Your task to perform on an android device: Clear the cart on ebay. Image 0: 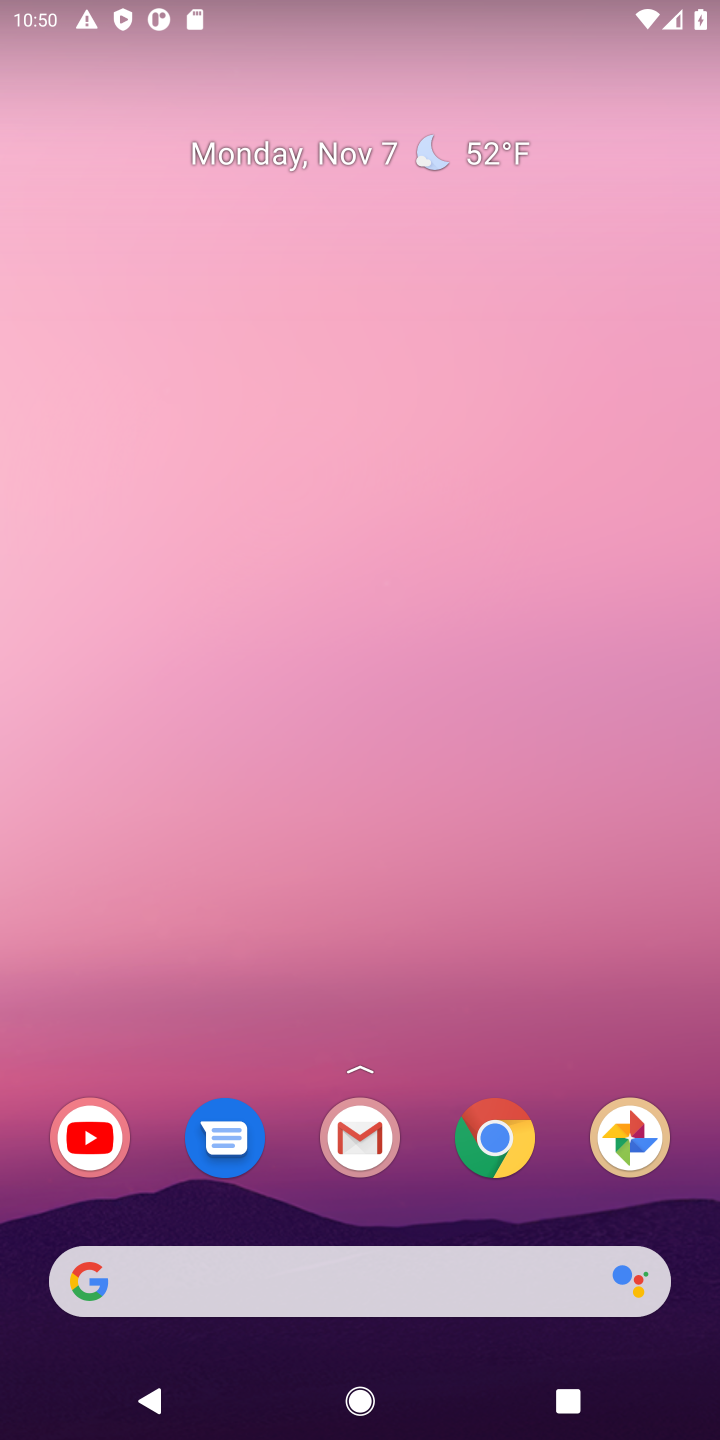
Step 0: press home button
Your task to perform on an android device: Clear the cart on ebay. Image 1: 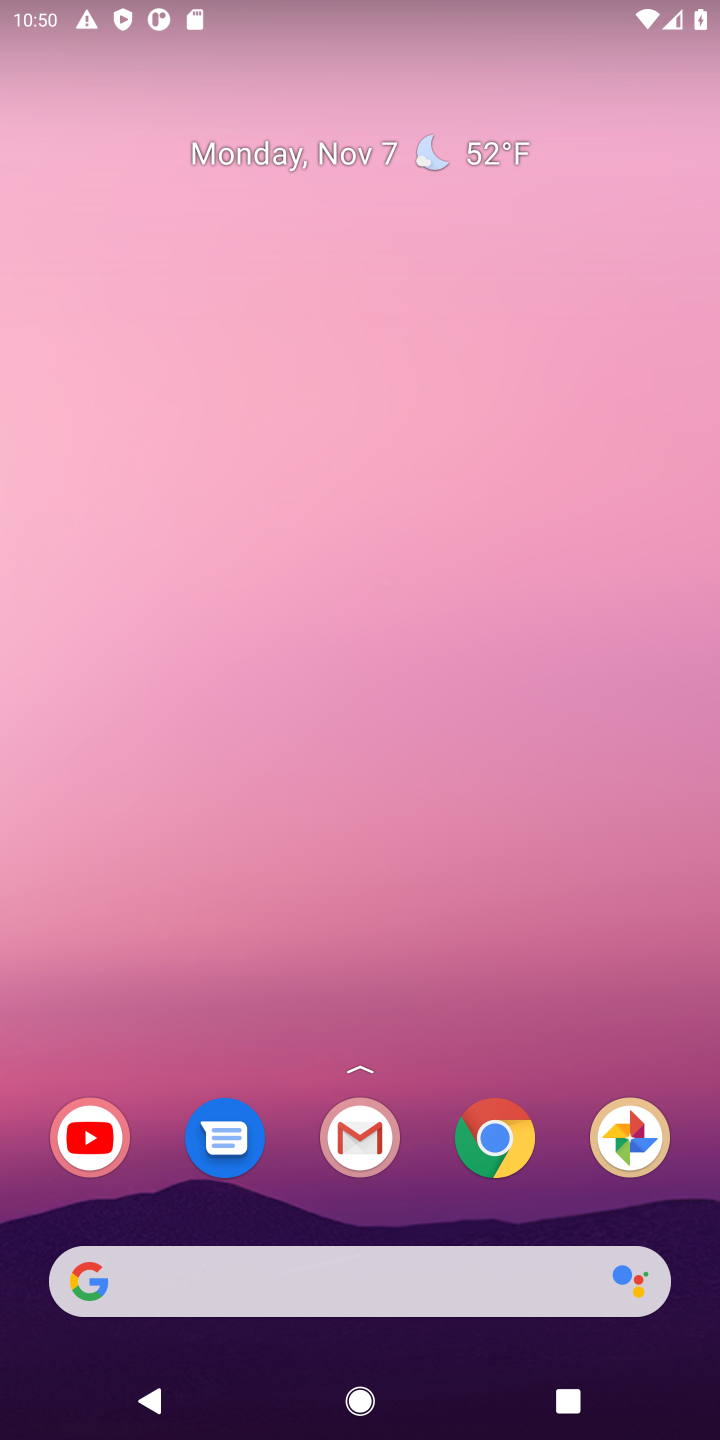
Step 1: click (474, 1159)
Your task to perform on an android device: Clear the cart on ebay. Image 2: 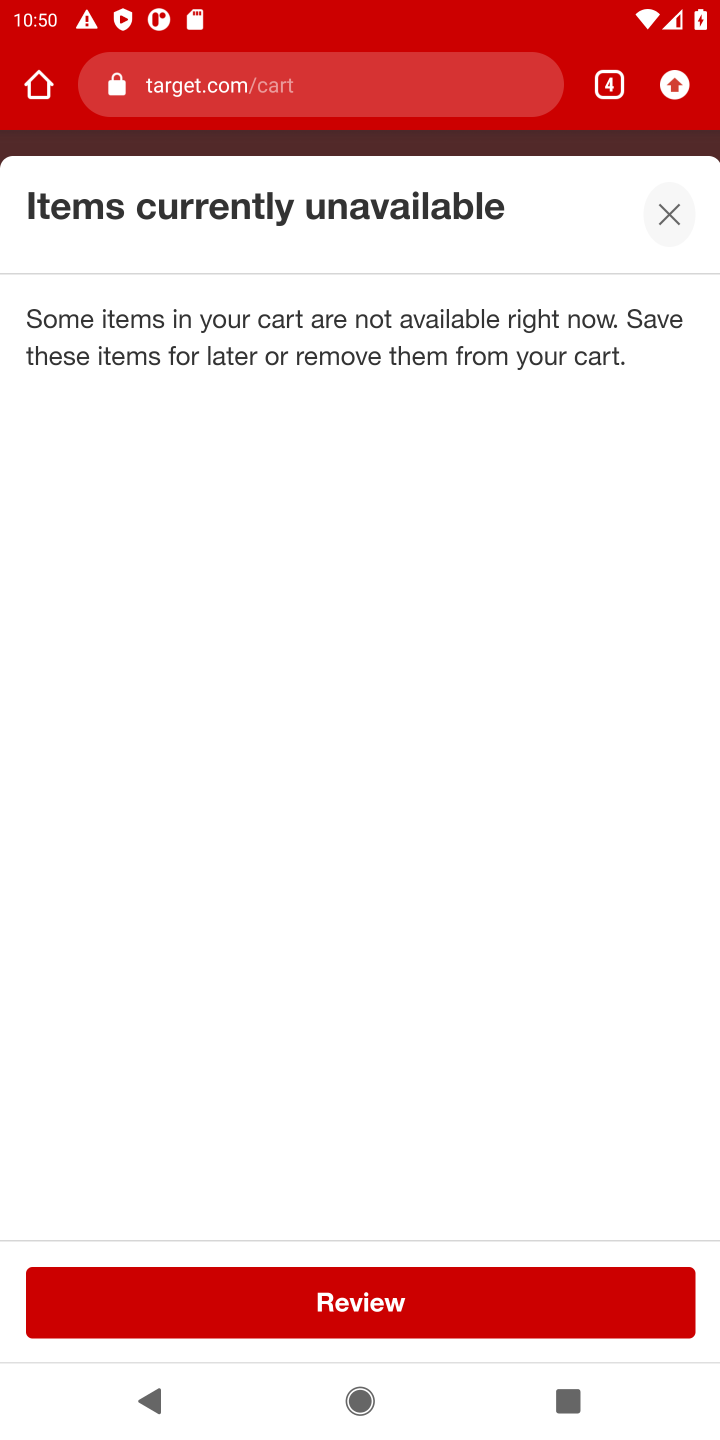
Step 2: click (243, 102)
Your task to perform on an android device: Clear the cart on ebay. Image 3: 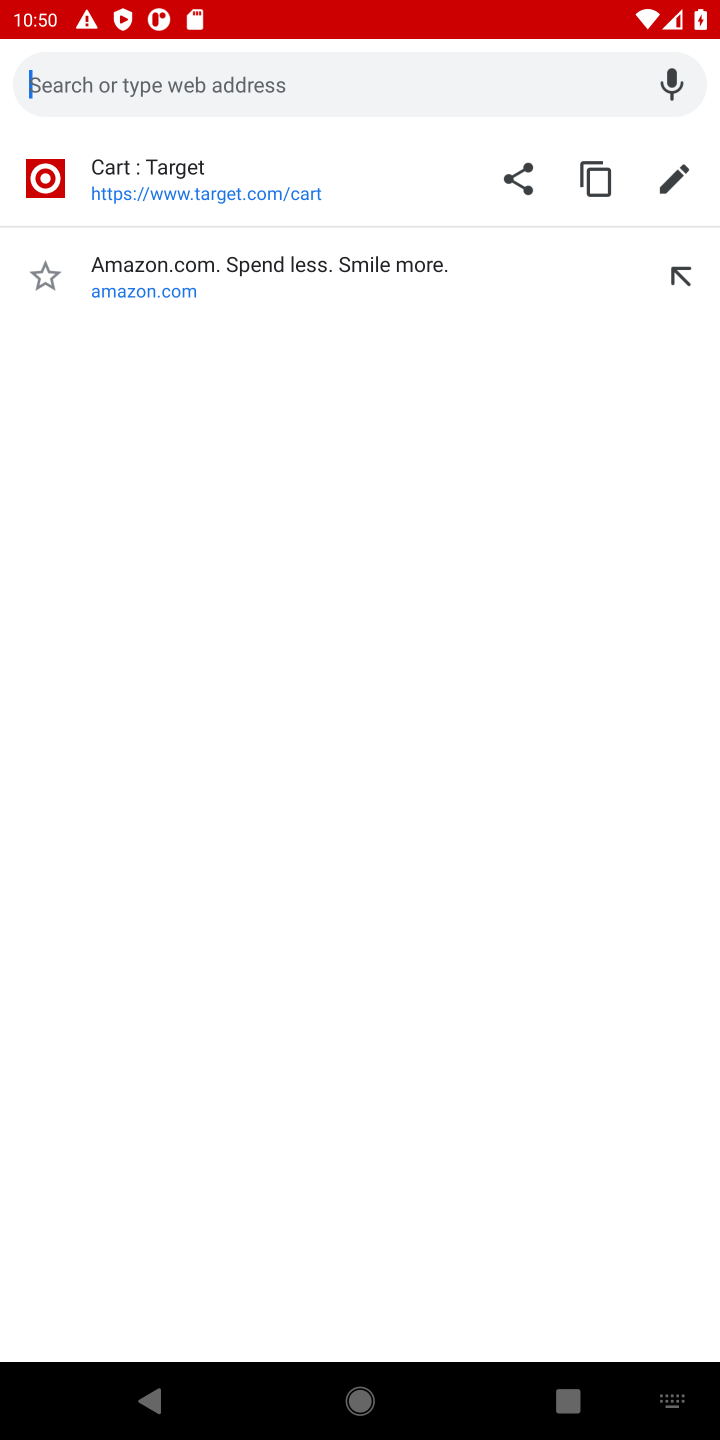
Step 3: type "ebay"
Your task to perform on an android device: Clear the cart on ebay. Image 4: 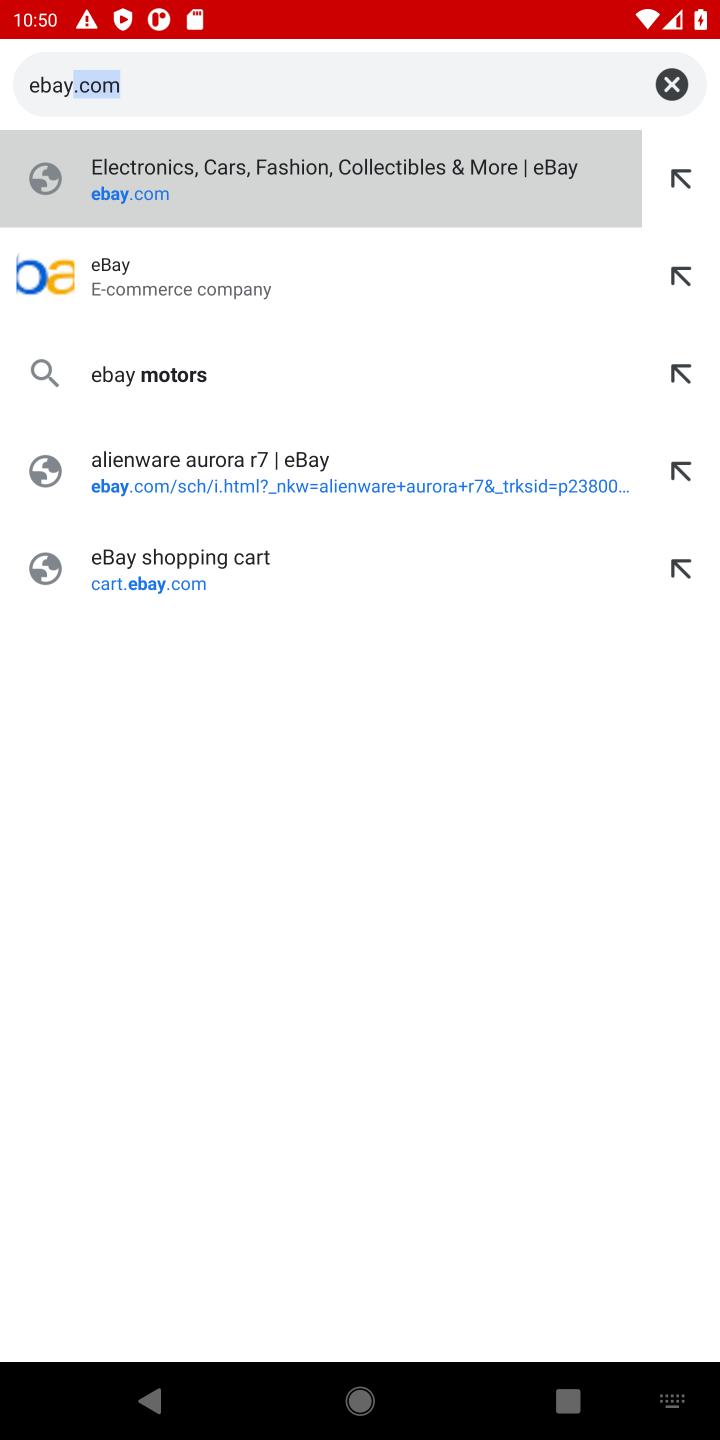
Step 4: click (111, 273)
Your task to perform on an android device: Clear the cart on ebay. Image 5: 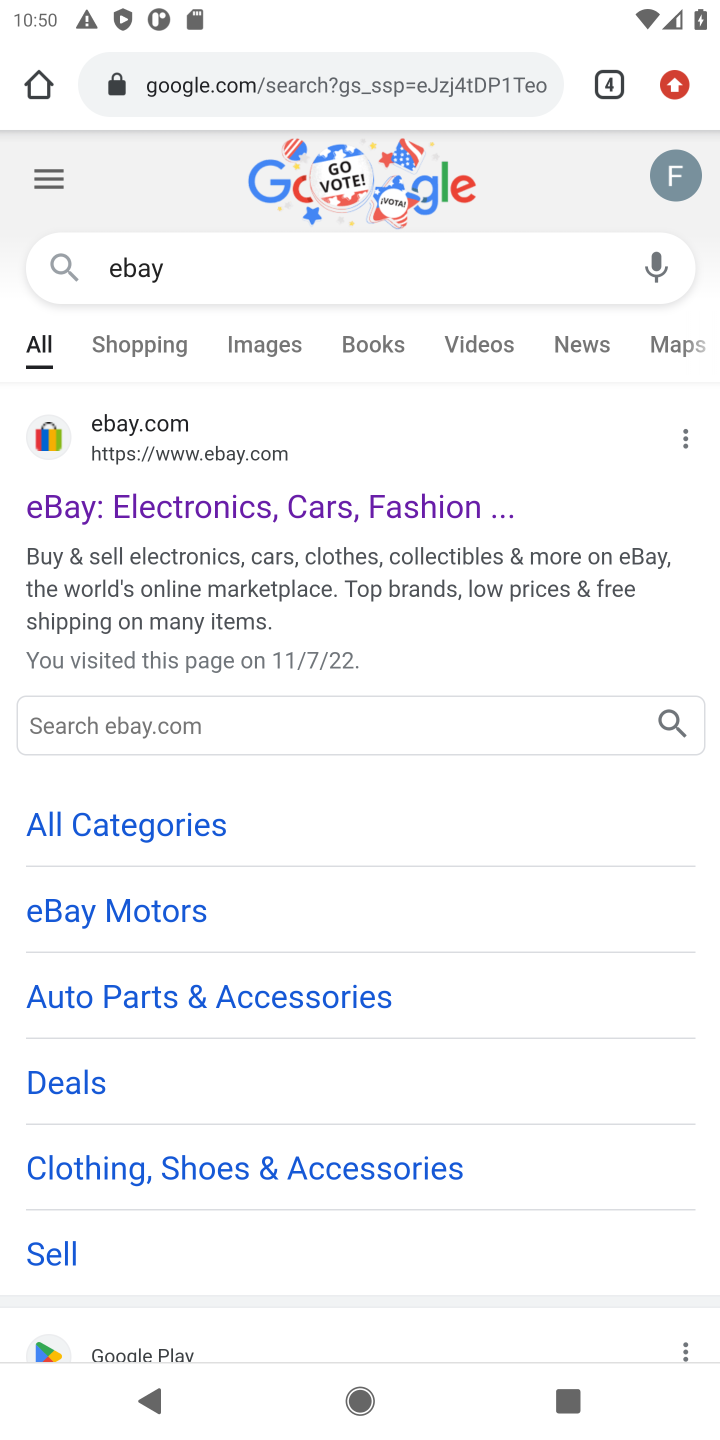
Step 5: click (179, 508)
Your task to perform on an android device: Clear the cart on ebay. Image 6: 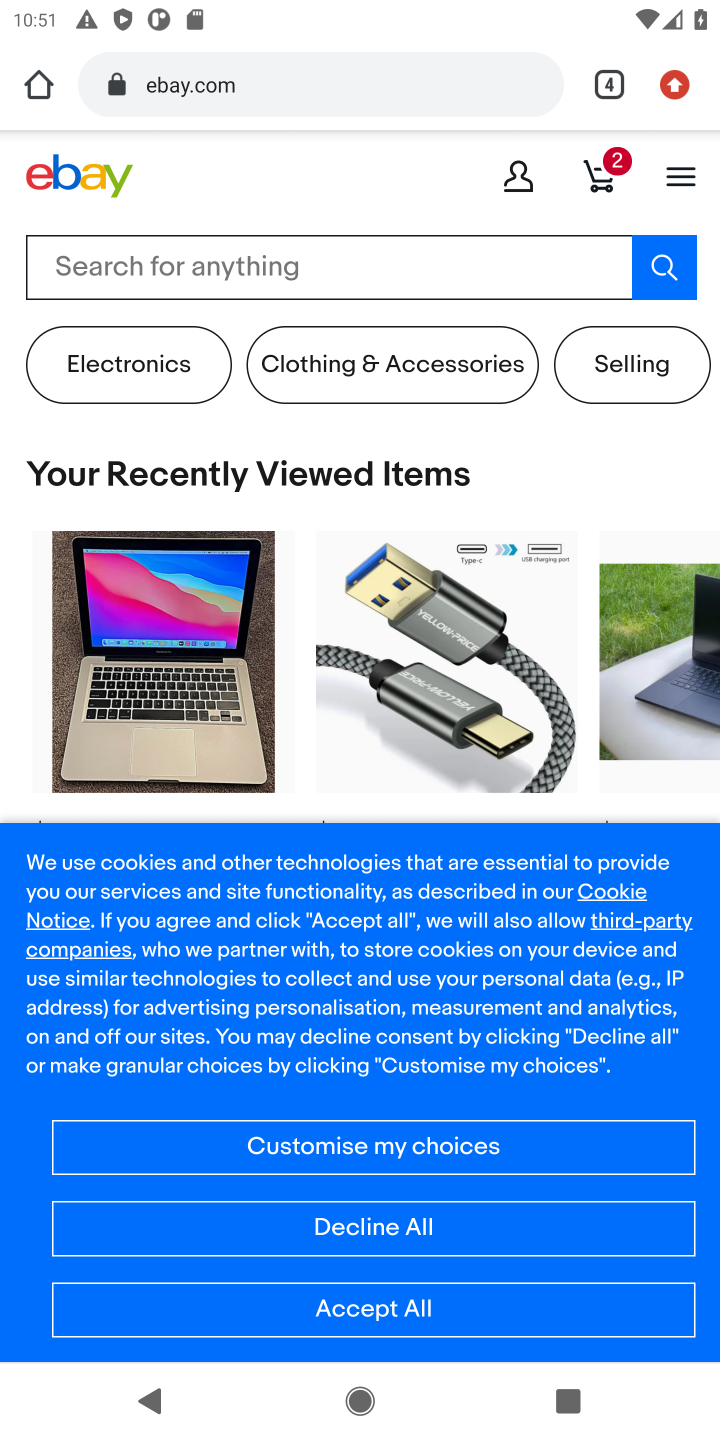
Step 6: click (240, 261)
Your task to perform on an android device: Clear the cart on ebay. Image 7: 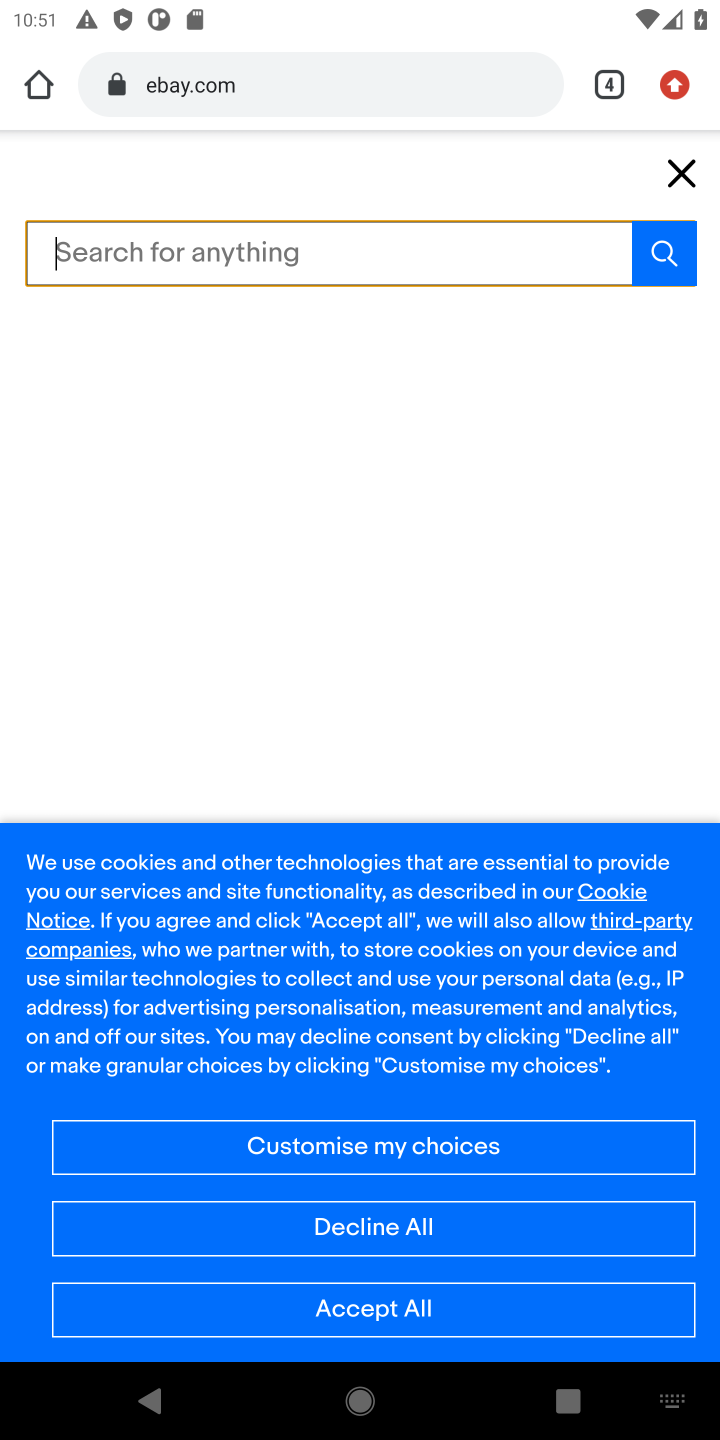
Step 7: press back button
Your task to perform on an android device: Clear the cart on ebay. Image 8: 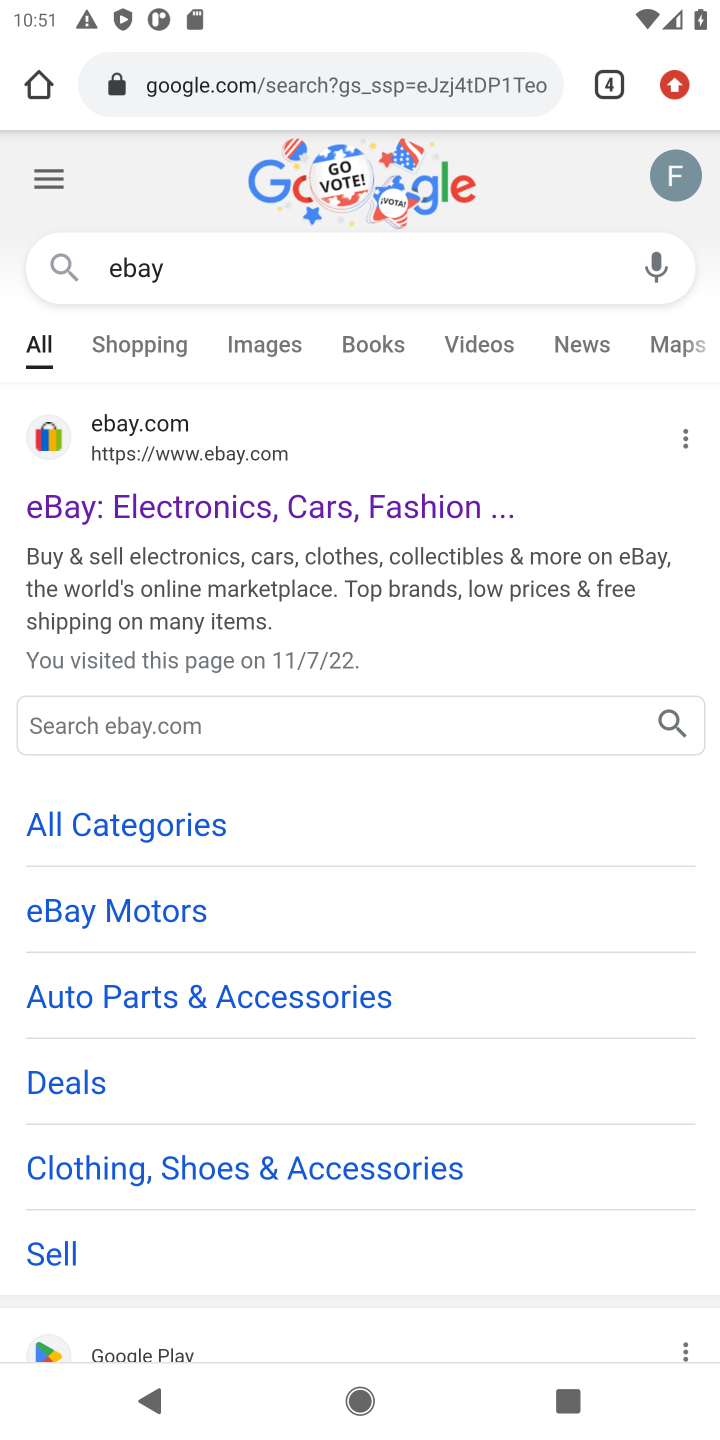
Step 8: click (171, 515)
Your task to perform on an android device: Clear the cart on ebay. Image 9: 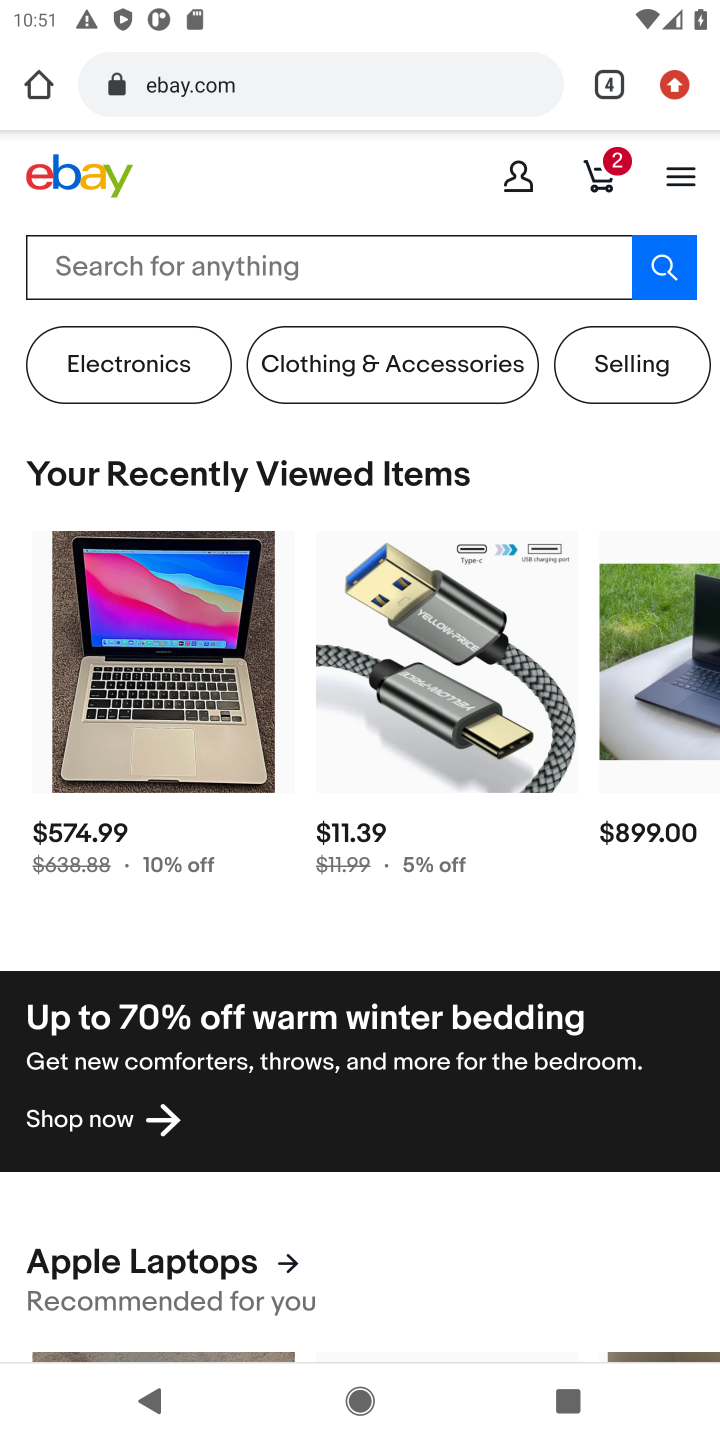
Step 9: click (590, 185)
Your task to perform on an android device: Clear the cart on ebay. Image 10: 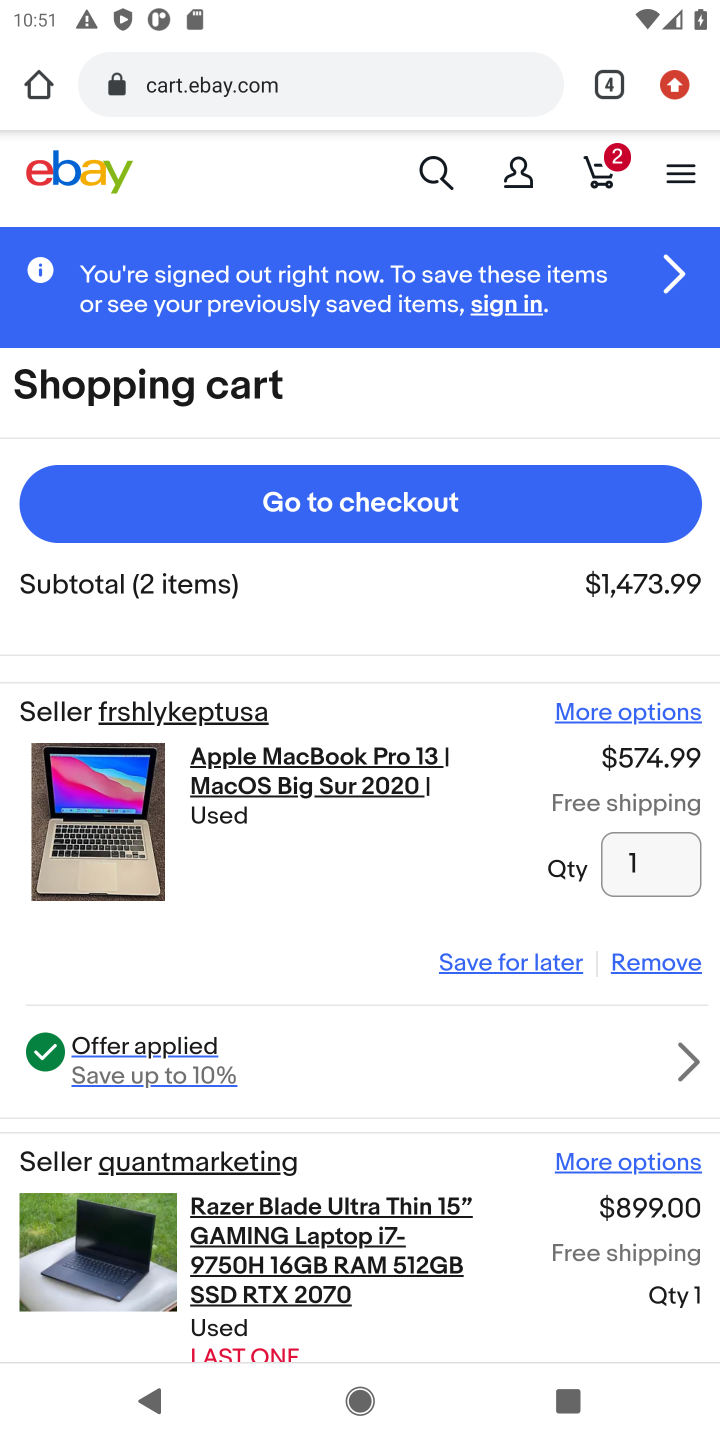
Step 10: drag from (284, 1053) to (321, 614)
Your task to perform on an android device: Clear the cart on ebay. Image 11: 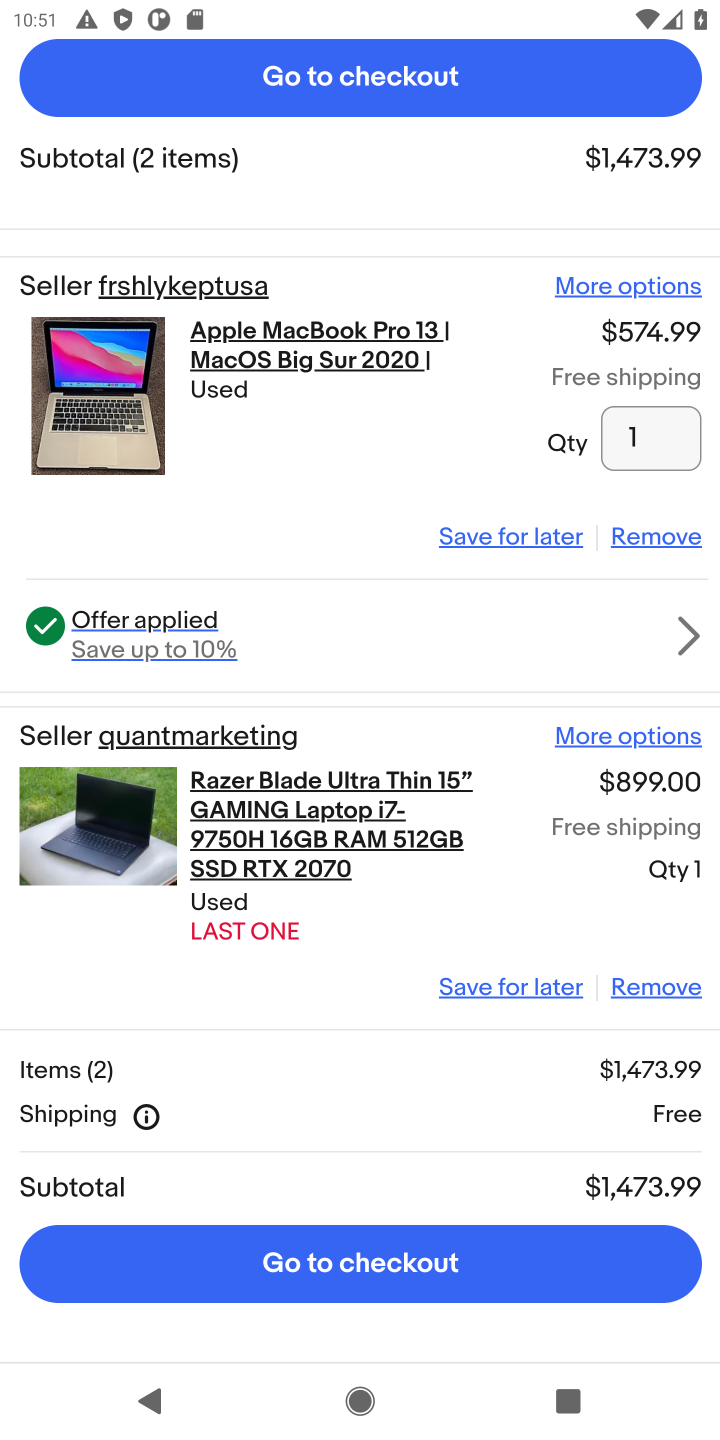
Step 11: click (630, 539)
Your task to perform on an android device: Clear the cart on ebay. Image 12: 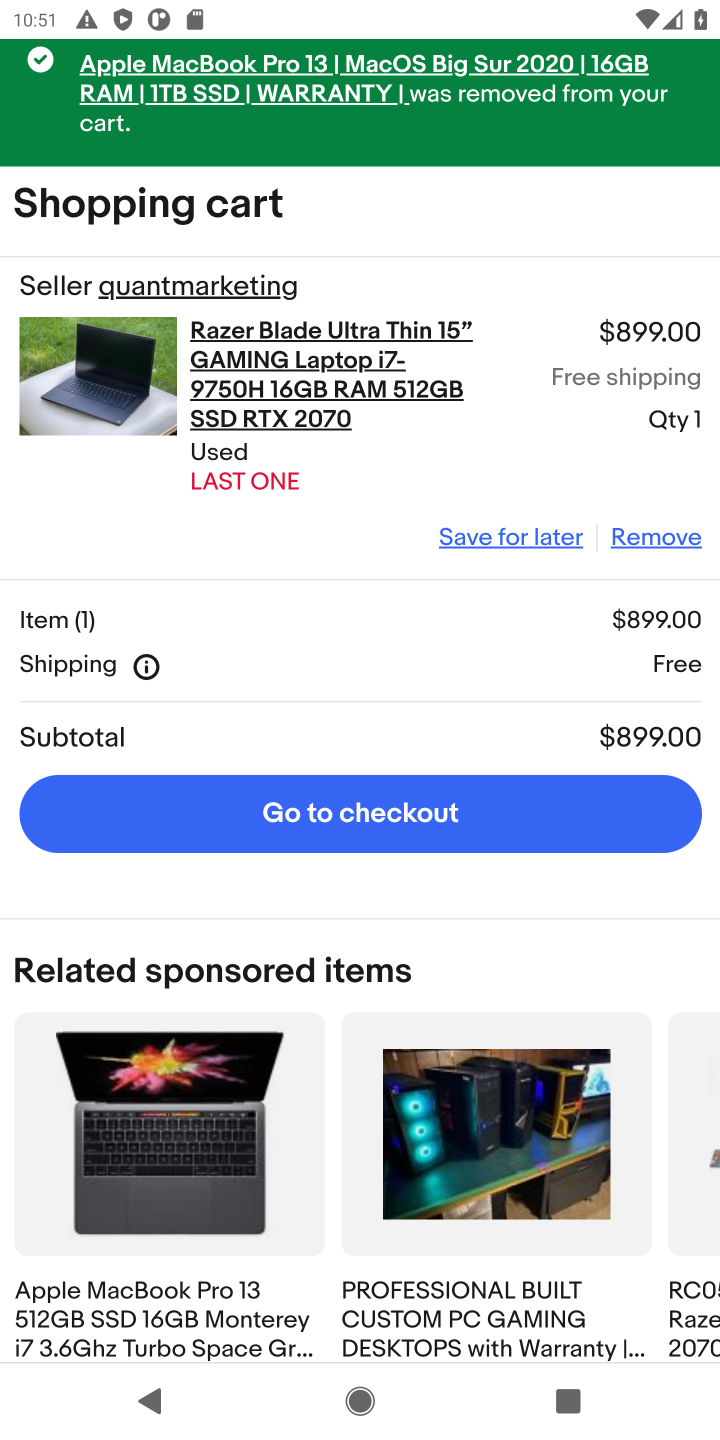
Step 12: click (623, 535)
Your task to perform on an android device: Clear the cart on ebay. Image 13: 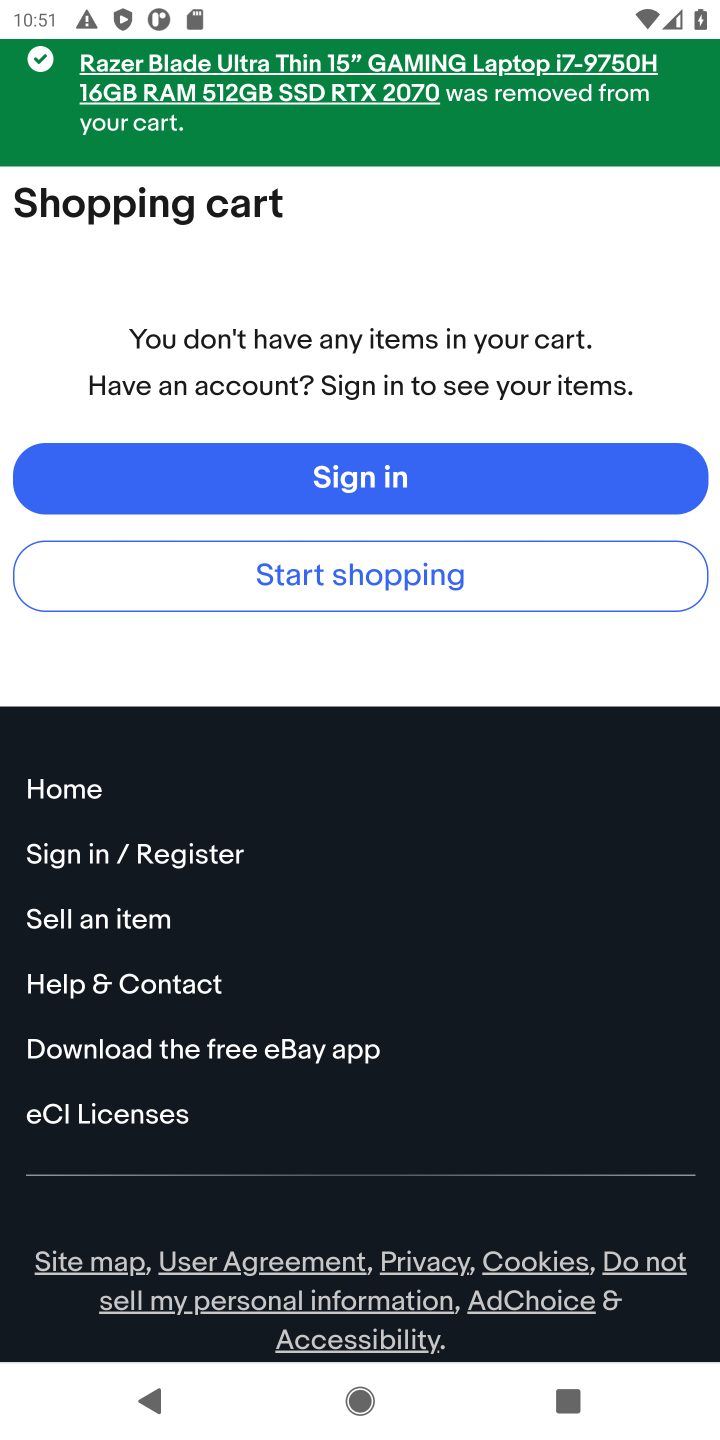
Step 13: task complete